Your task to perform on an android device: Open Amazon Image 0: 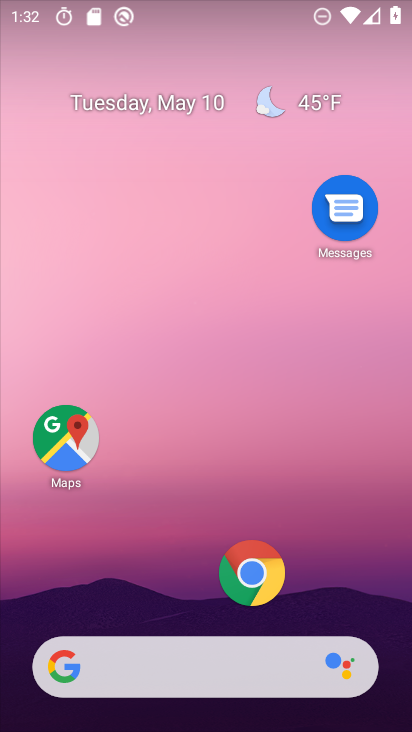
Step 0: drag from (179, 601) to (263, 223)
Your task to perform on an android device: Open Amazon Image 1: 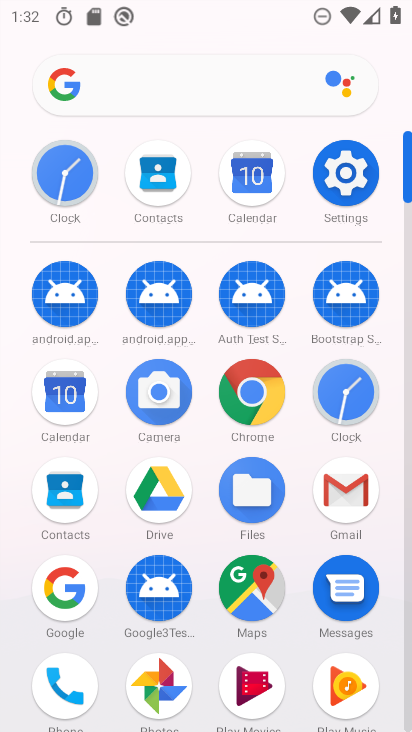
Step 1: click (181, 90)
Your task to perform on an android device: Open Amazon Image 2: 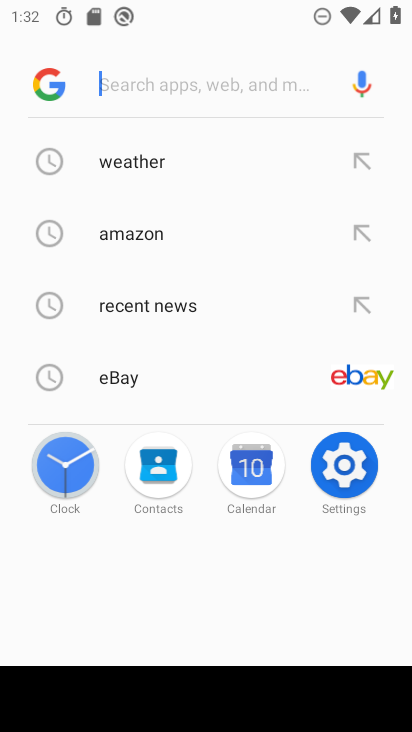
Step 2: click (130, 227)
Your task to perform on an android device: Open Amazon Image 3: 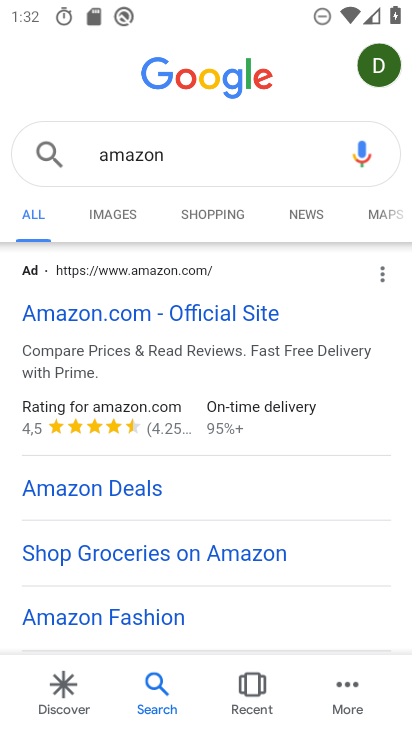
Step 3: drag from (196, 554) to (231, 566)
Your task to perform on an android device: Open Amazon Image 4: 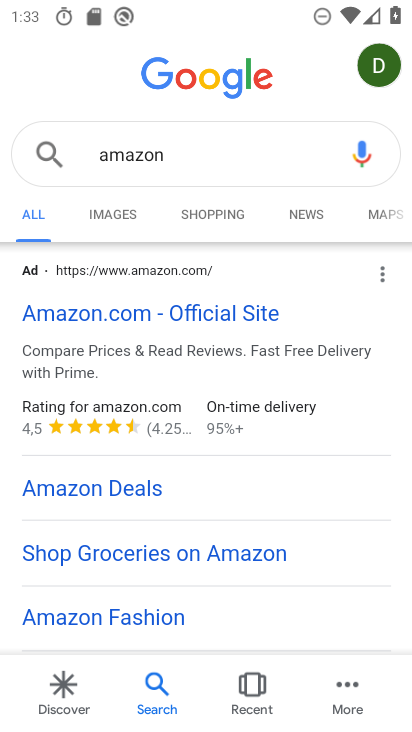
Step 4: click (149, 312)
Your task to perform on an android device: Open Amazon Image 5: 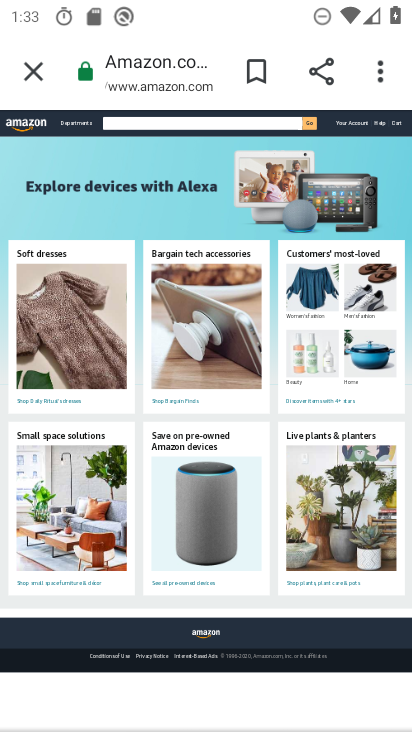
Step 5: task complete